Your task to perform on an android device: manage bookmarks in the chrome app Image 0: 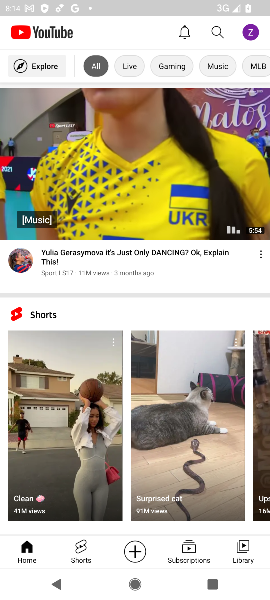
Step 0: drag from (200, 363) to (240, 221)
Your task to perform on an android device: manage bookmarks in the chrome app Image 1: 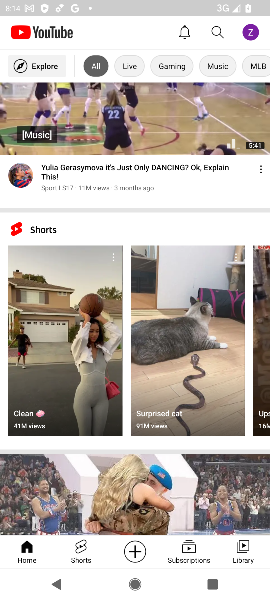
Step 1: press home button
Your task to perform on an android device: manage bookmarks in the chrome app Image 2: 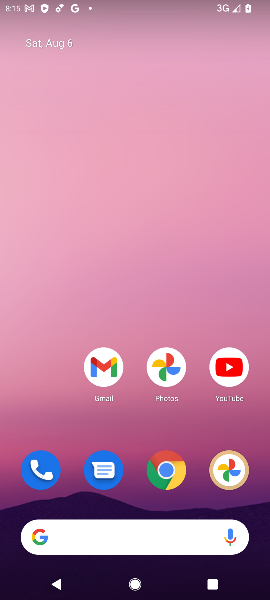
Step 2: click (182, 467)
Your task to perform on an android device: manage bookmarks in the chrome app Image 3: 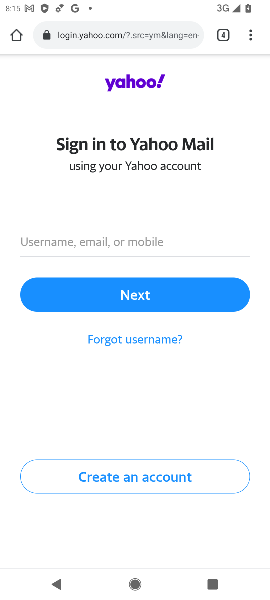
Step 3: click (250, 37)
Your task to perform on an android device: manage bookmarks in the chrome app Image 4: 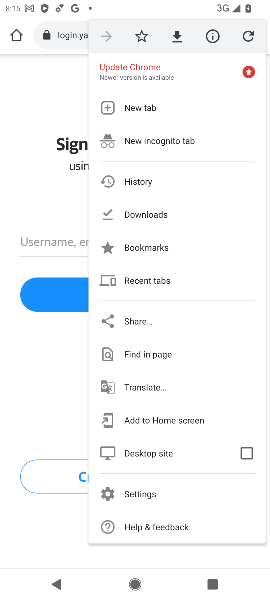
Step 4: click (161, 250)
Your task to perform on an android device: manage bookmarks in the chrome app Image 5: 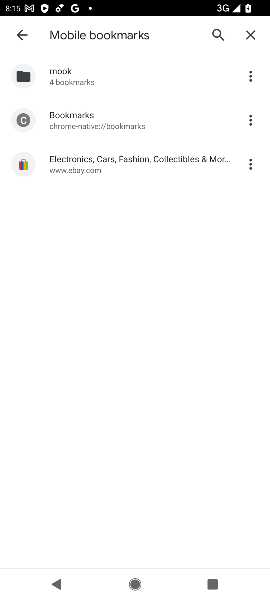
Step 5: task complete